Your task to perform on an android device: What is the recent news? Image 0: 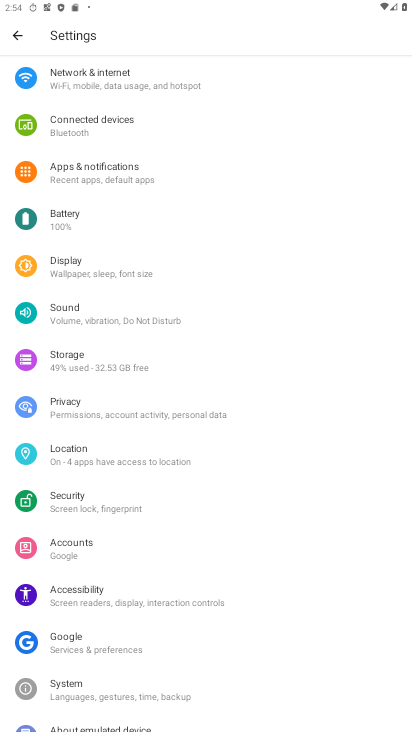
Step 0: press home button
Your task to perform on an android device: What is the recent news? Image 1: 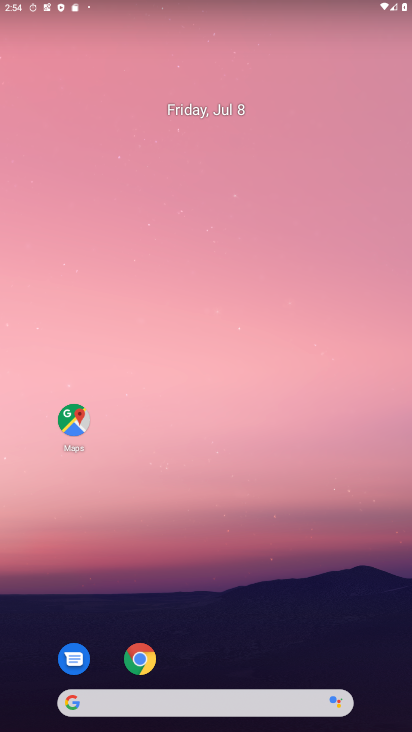
Step 1: click (268, 705)
Your task to perform on an android device: What is the recent news? Image 2: 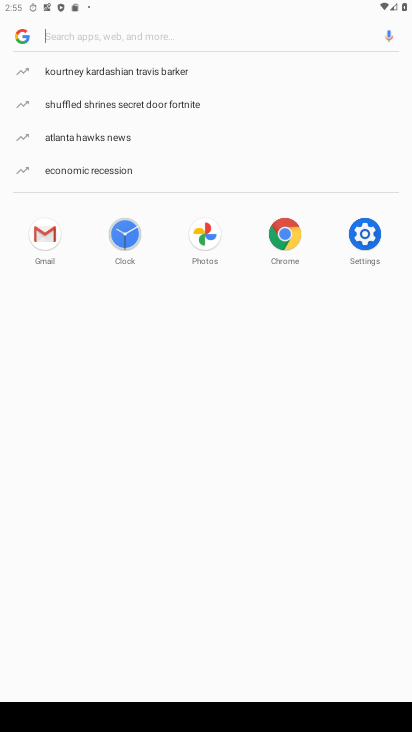
Step 2: type "what is the recent news"
Your task to perform on an android device: What is the recent news? Image 3: 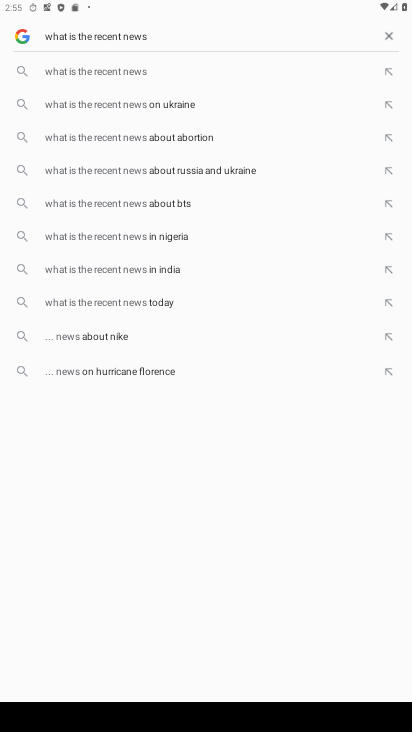
Step 3: click (193, 78)
Your task to perform on an android device: What is the recent news? Image 4: 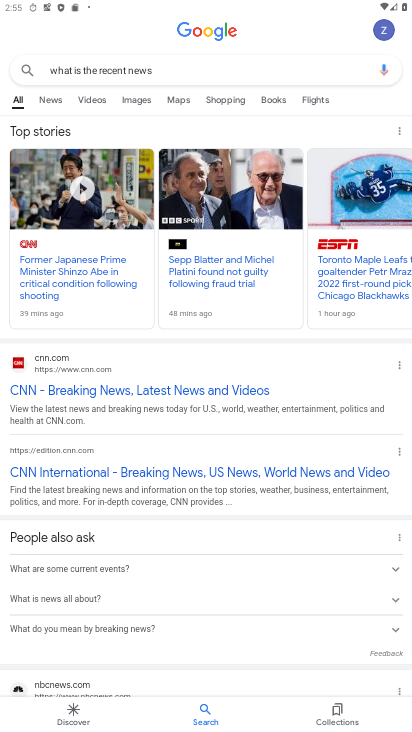
Step 4: task complete